Your task to perform on an android device: set the timer Image 0: 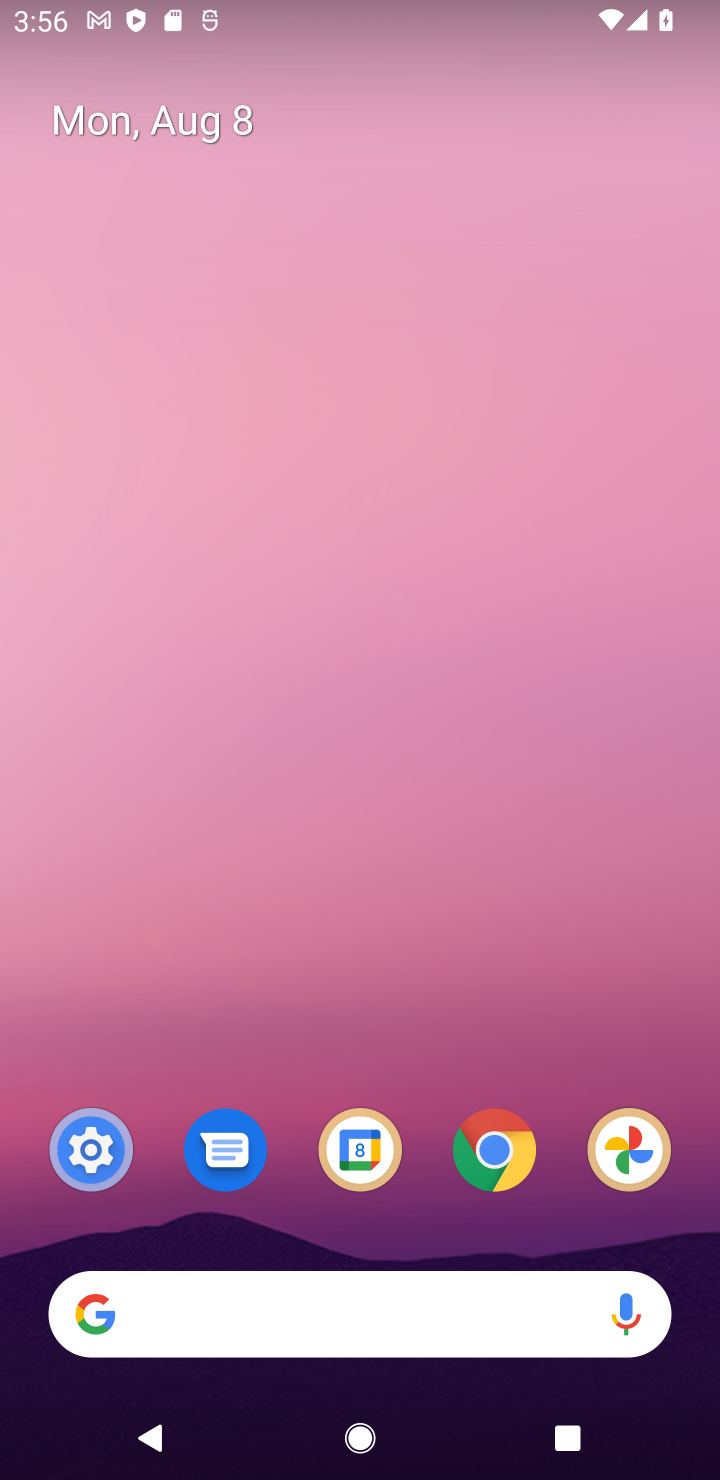
Step 0: drag from (270, 1229) to (281, 143)
Your task to perform on an android device: set the timer Image 1: 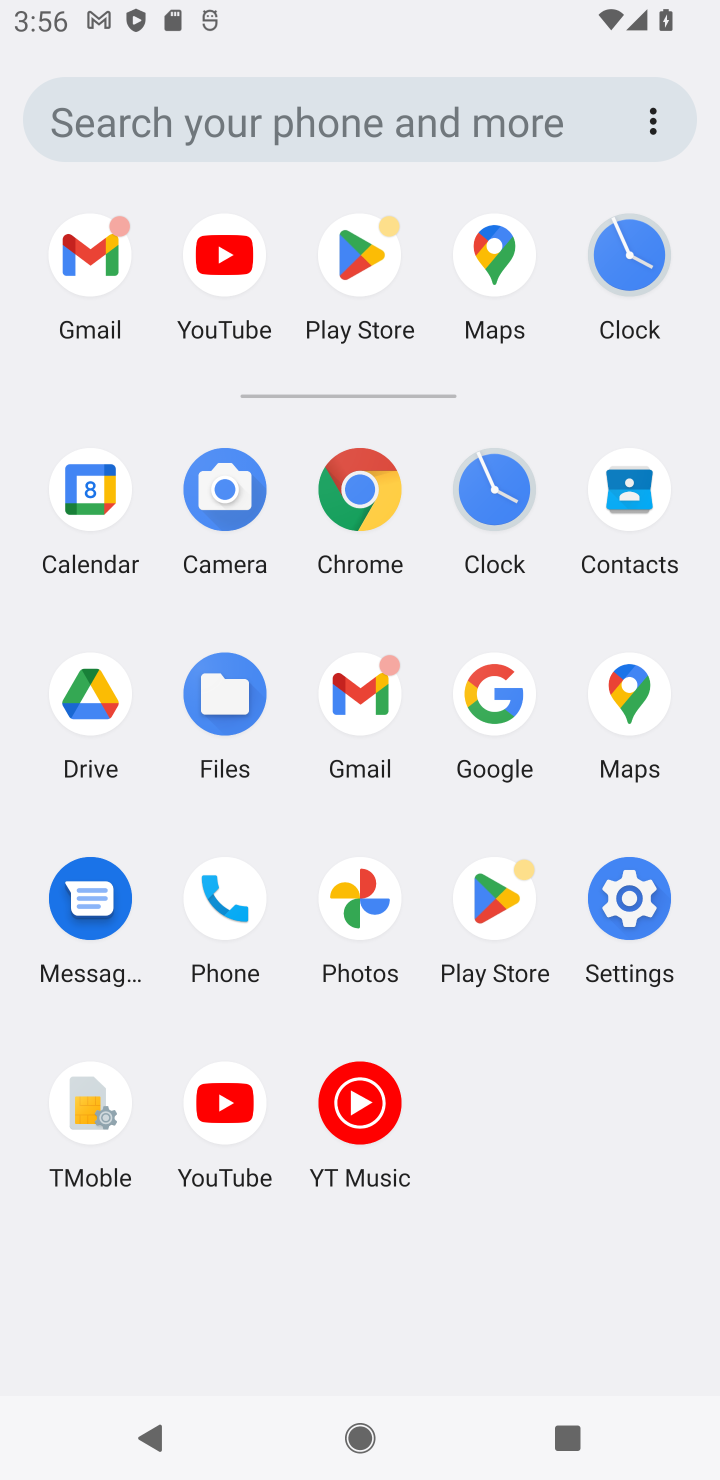
Step 1: click (657, 281)
Your task to perform on an android device: set the timer Image 2: 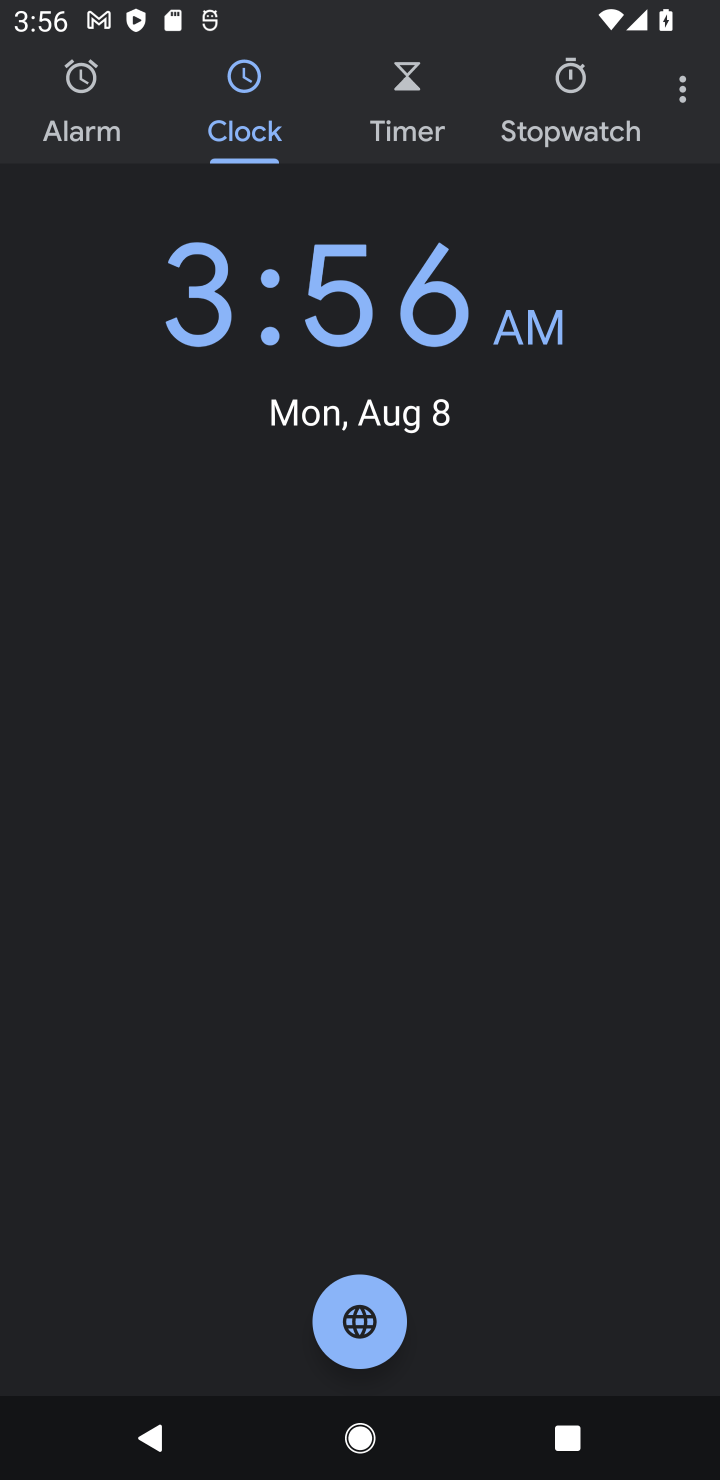
Step 2: click (445, 114)
Your task to perform on an android device: set the timer Image 3: 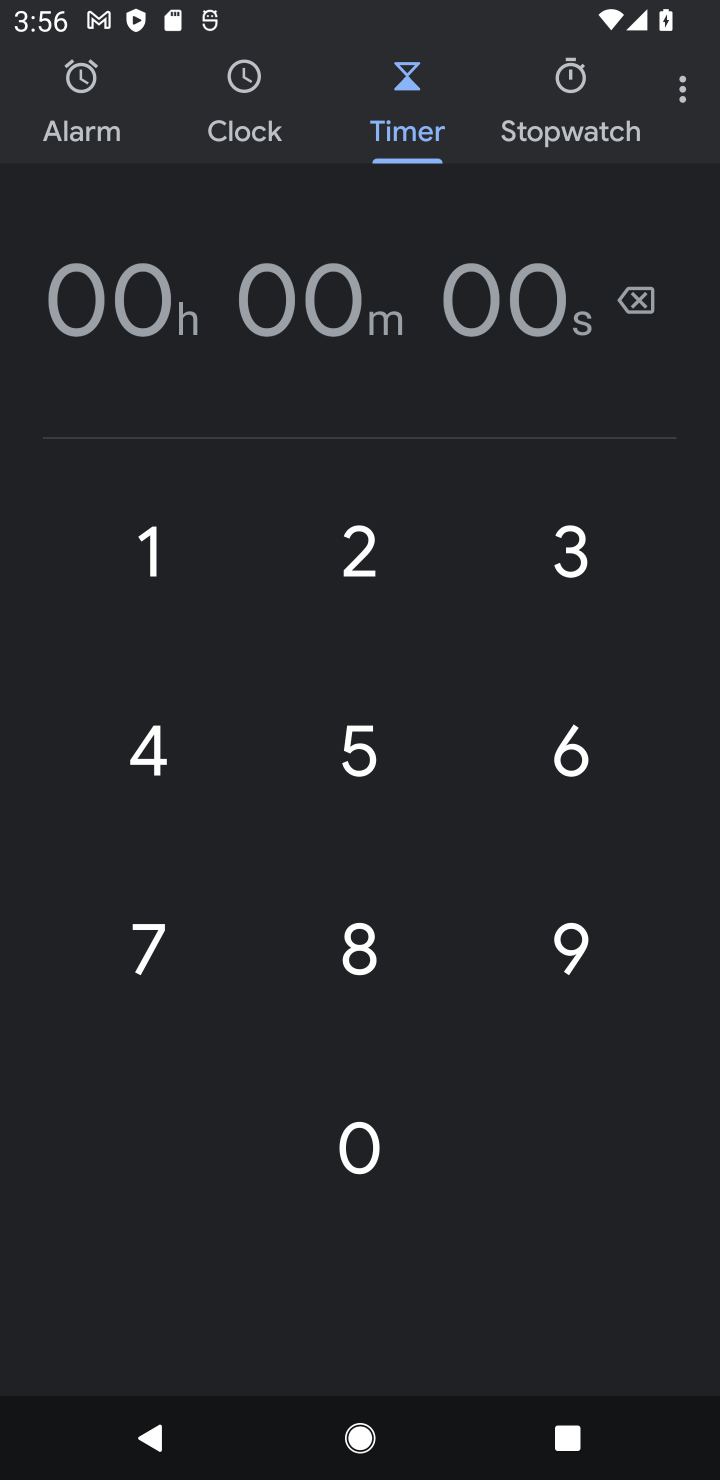
Step 3: task complete